Your task to perform on an android device: What's the weather? Image 0: 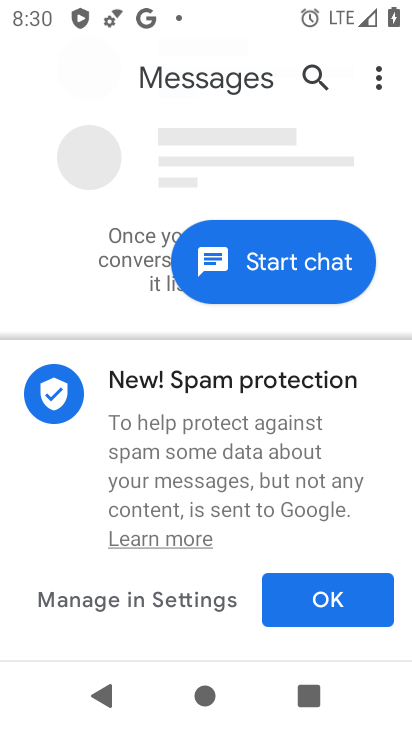
Step 0: press home button
Your task to perform on an android device: What's the weather? Image 1: 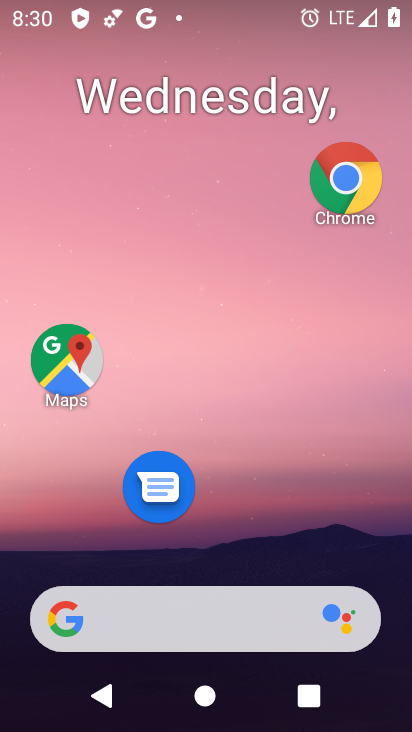
Step 1: drag from (229, 641) to (230, 243)
Your task to perform on an android device: What's the weather? Image 2: 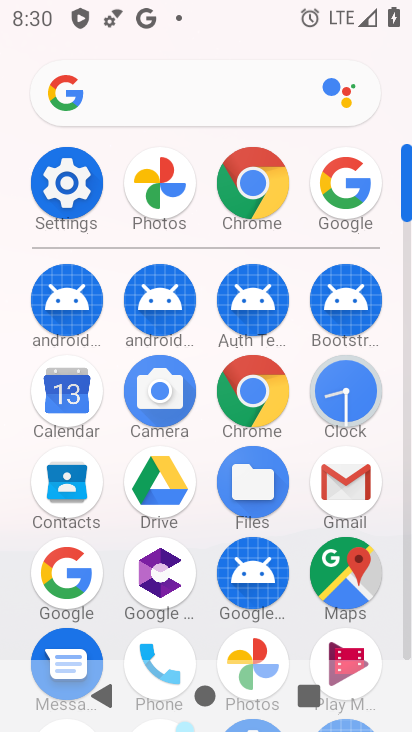
Step 2: click (82, 561)
Your task to perform on an android device: What's the weather? Image 3: 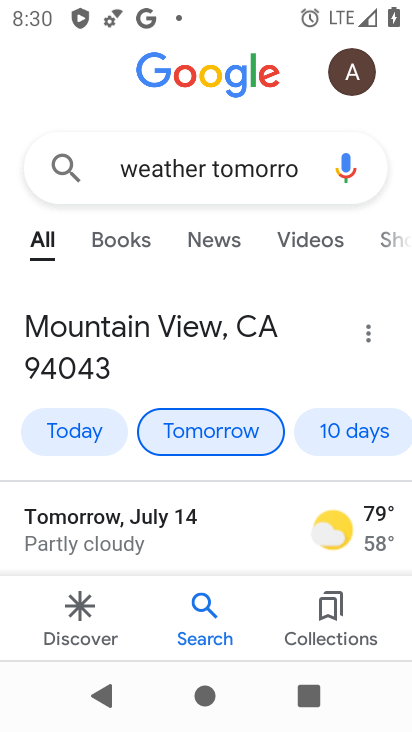
Step 3: click (91, 432)
Your task to perform on an android device: What's the weather? Image 4: 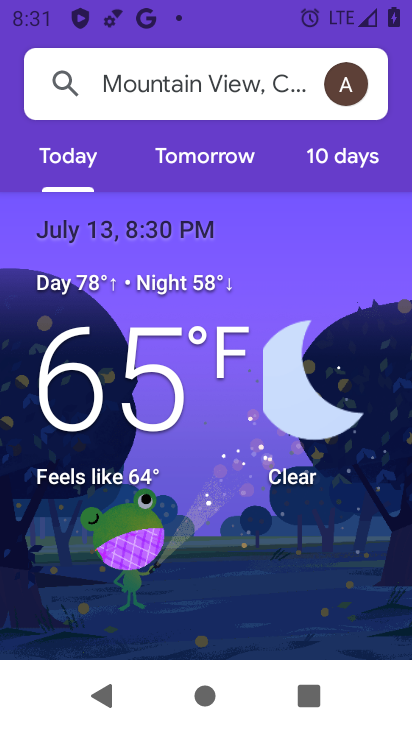
Step 4: task complete